Your task to perform on an android device: Search for Mexican restaurants on Maps Image 0: 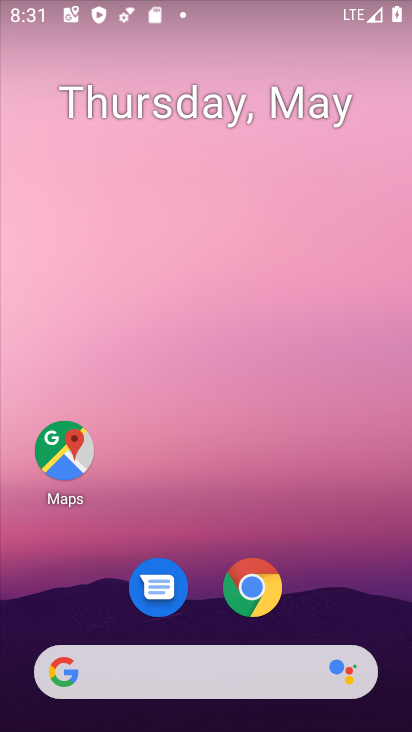
Step 0: click (82, 467)
Your task to perform on an android device: Search for Mexican restaurants on Maps Image 1: 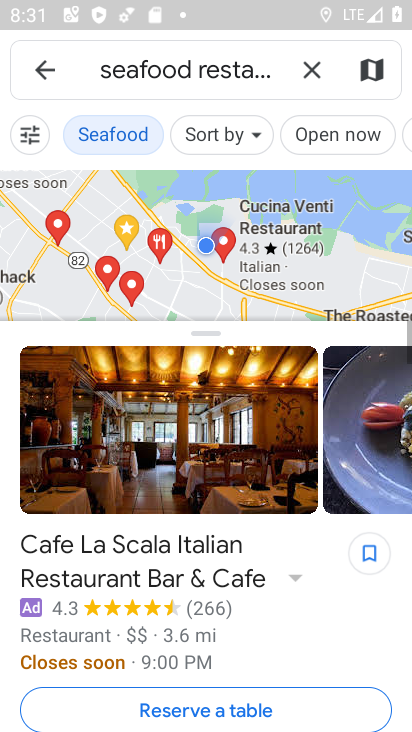
Step 1: click (314, 69)
Your task to perform on an android device: Search for Mexican restaurants on Maps Image 2: 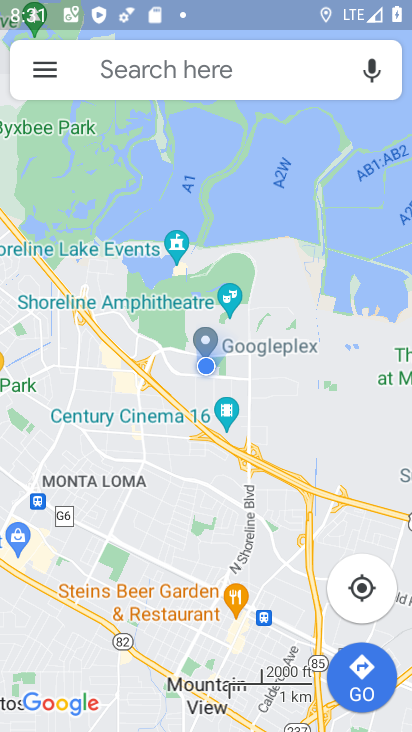
Step 2: click (240, 72)
Your task to perform on an android device: Search for Mexican restaurants on Maps Image 3: 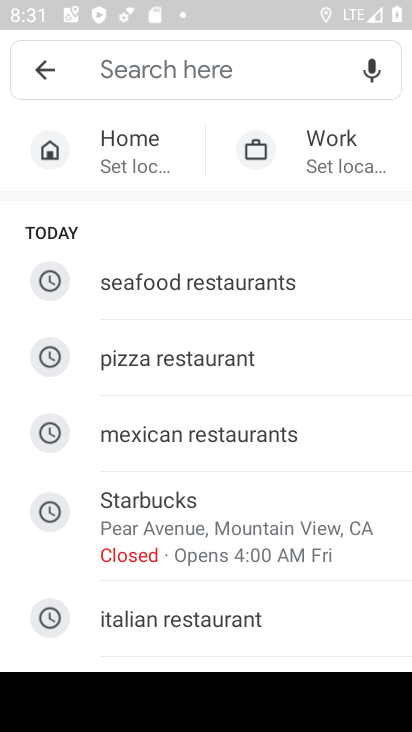
Step 3: type "mexican restaurants"
Your task to perform on an android device: Search for Mexican restaurants on Maps Image 4: 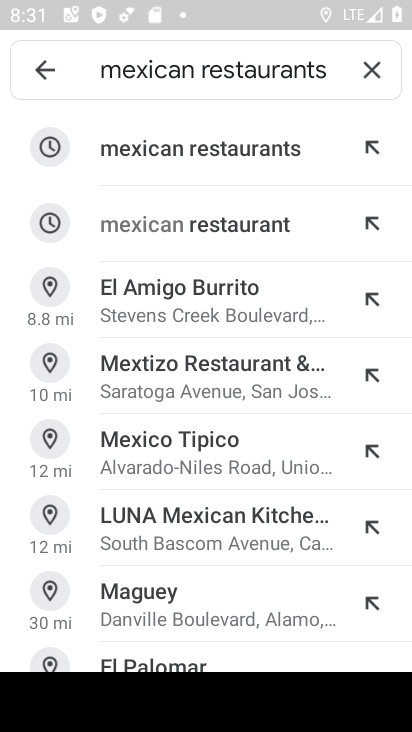
Step 4: click (210, 144)
Your task to perform on an android device: Search for Mexican restaurants on Maps Image 5: 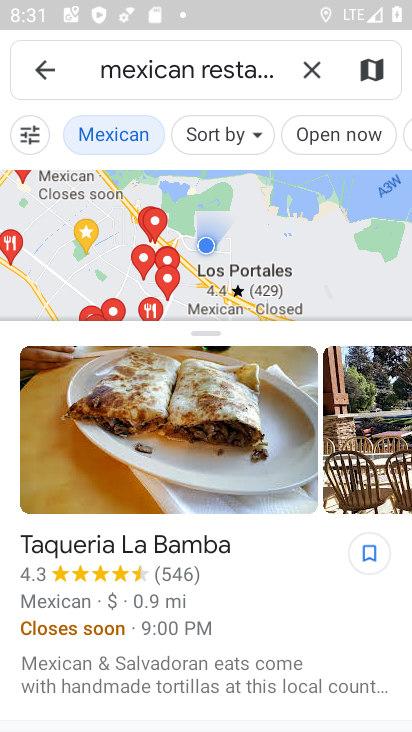
Step 5: task complete